Your task to perform on an android device: install app "Google Play Music" Image 0: 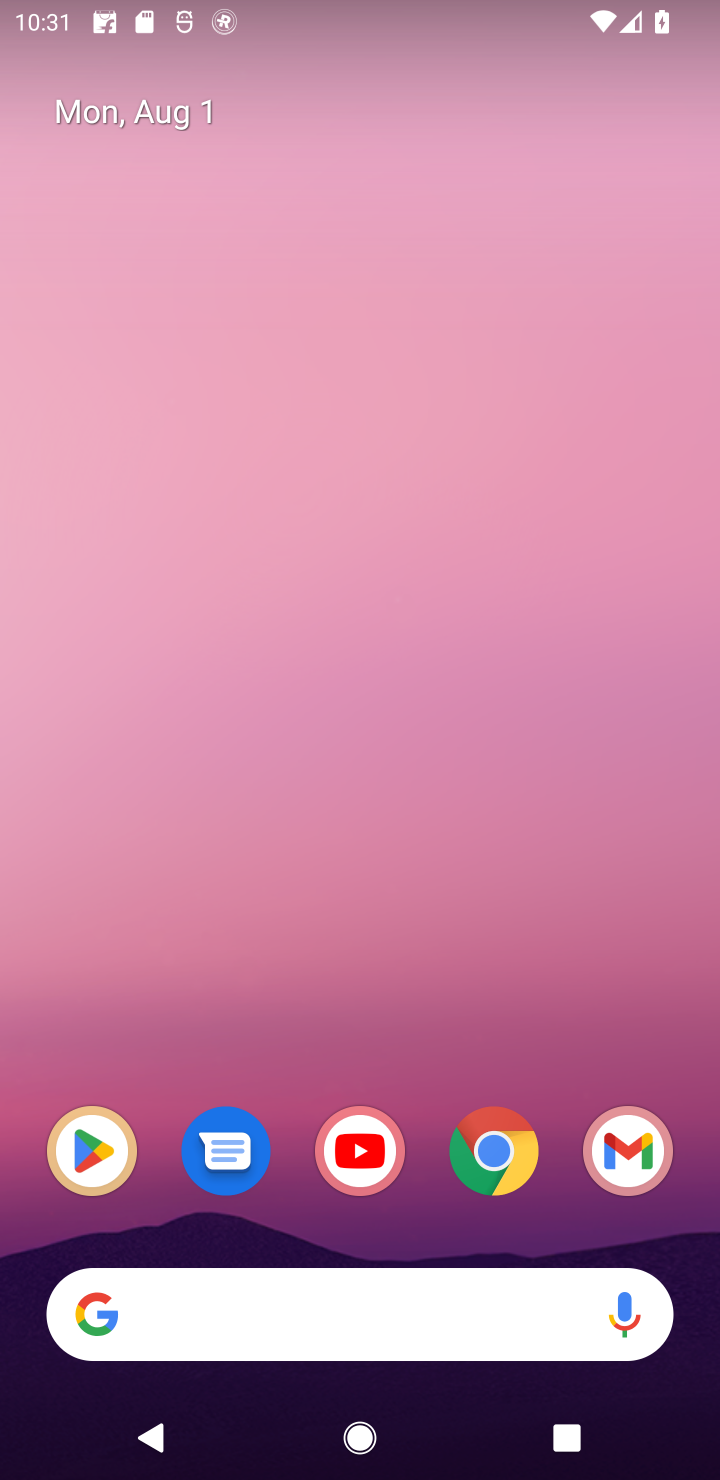
Step 0: click (90, 1146)
Your task to perform on an android device: install app "Google Play Music" Image 1: 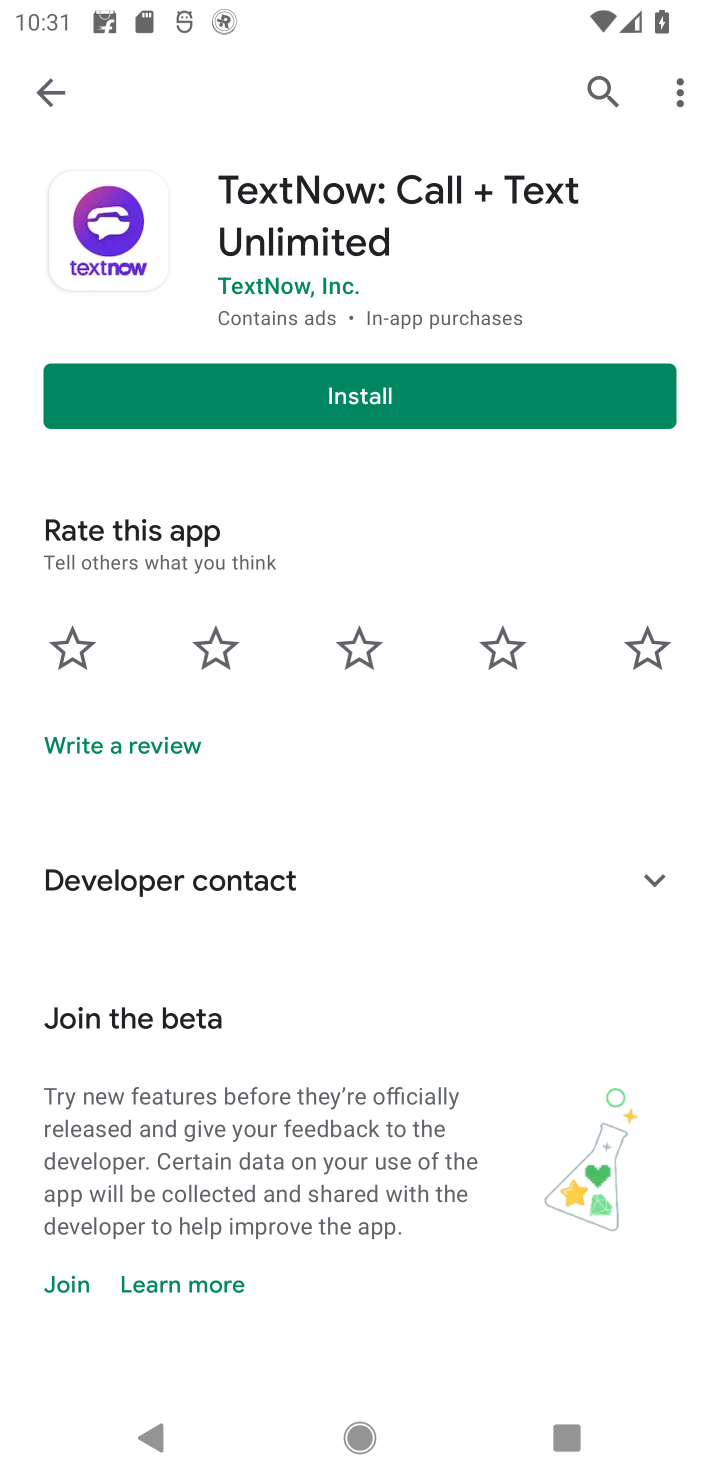
Step 1: click (669, 85)
Your task to perform on an android device: install app "Google Play Music" Image 2: 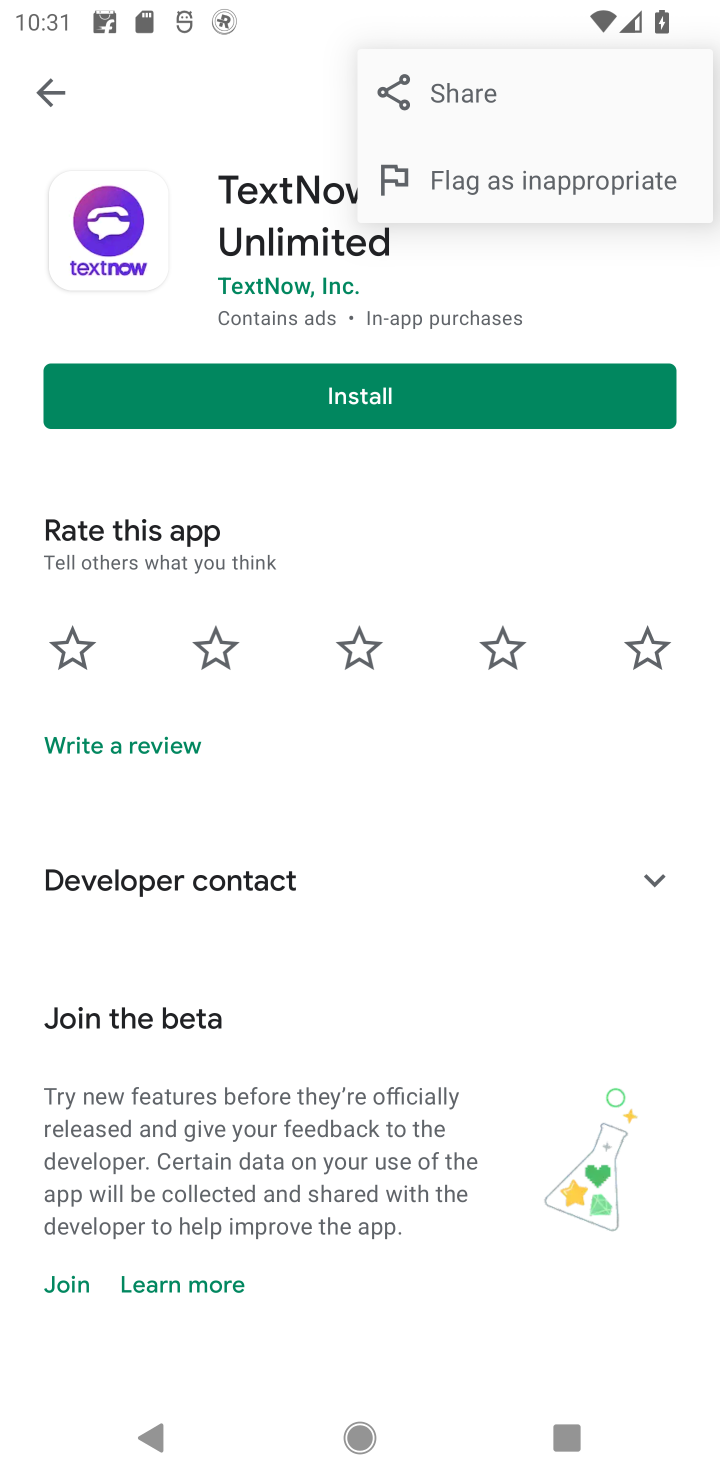
Step 2: click (115, 121)
Your task to perform on an android device: install app "Google Play Music" Image 3: 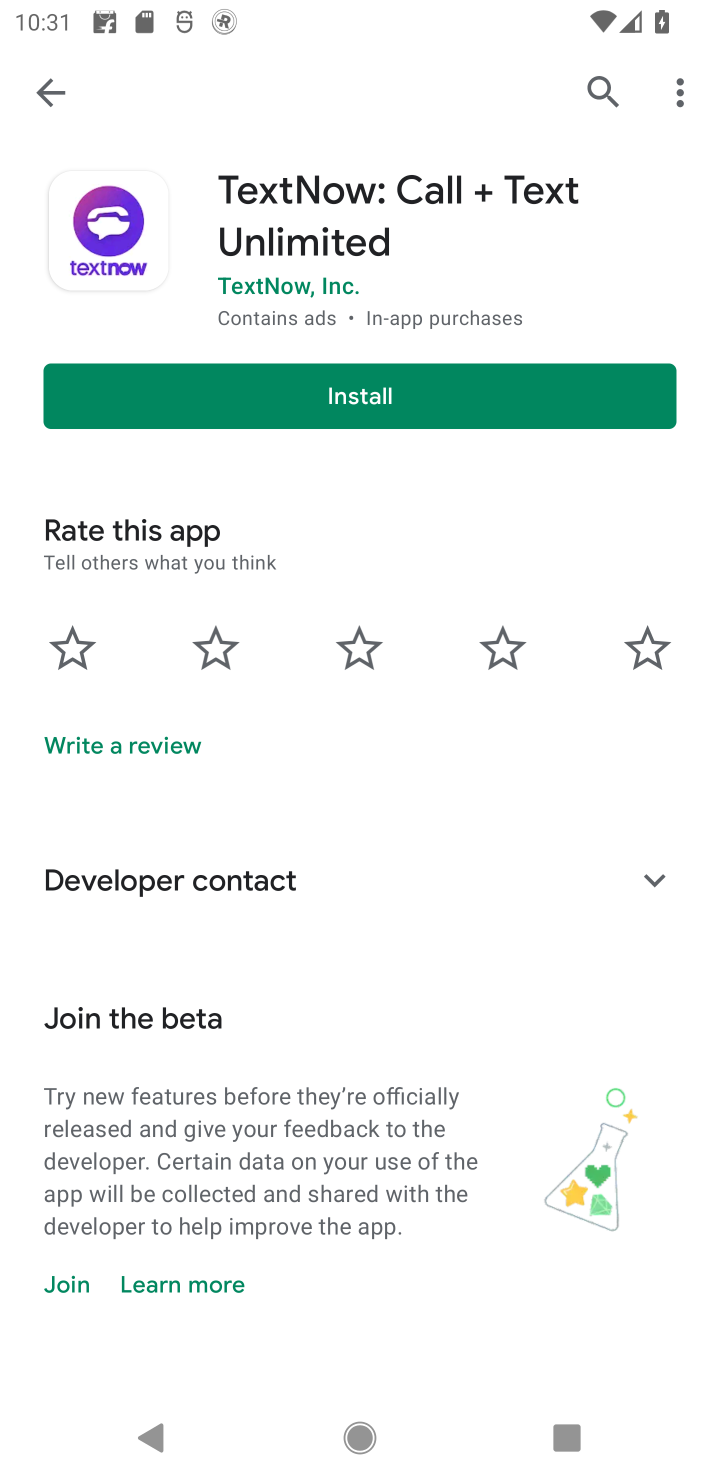
Step 3: click (597, 106)
Your task to perform on an android device: install app "Google Play Music" Image 4: 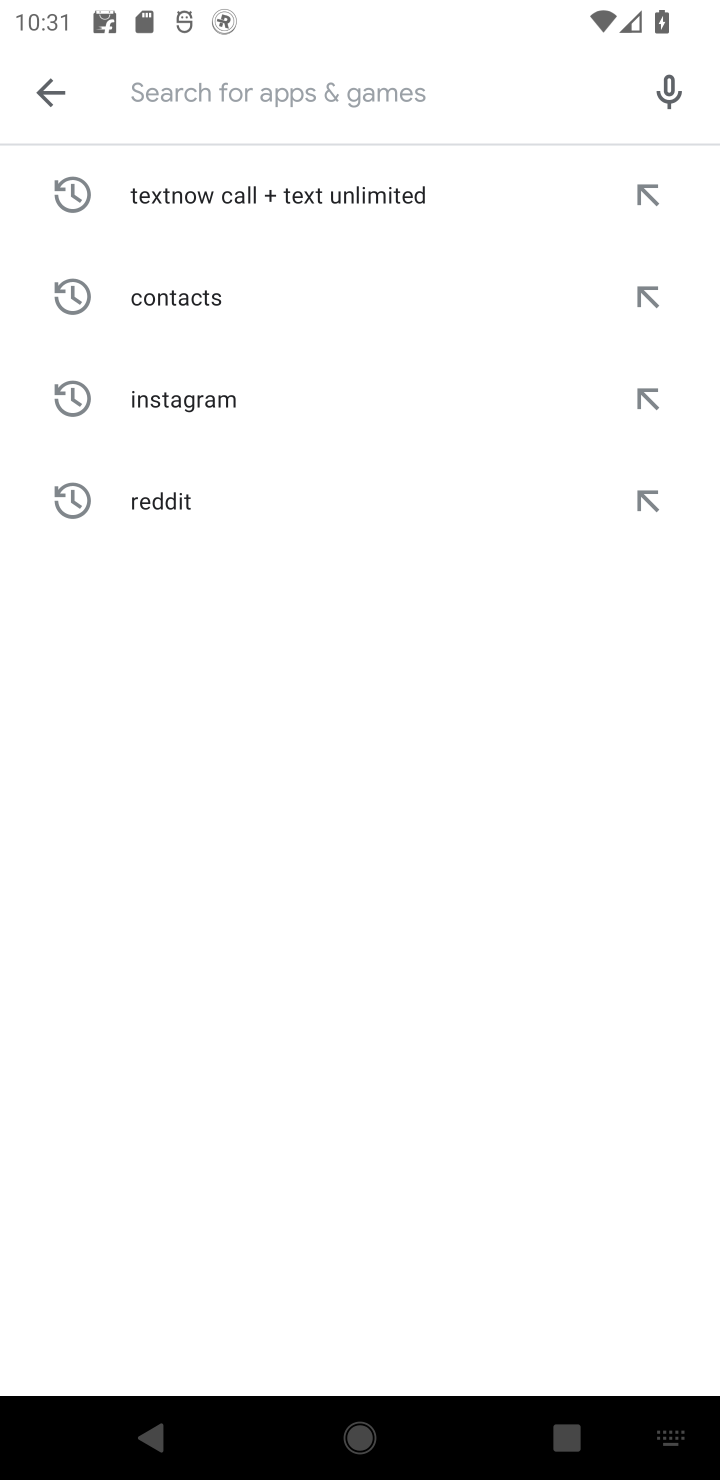
Step 4: type "Google Play Music"
Your task to perform on an android device: install app "Google Play Music" Image 5: 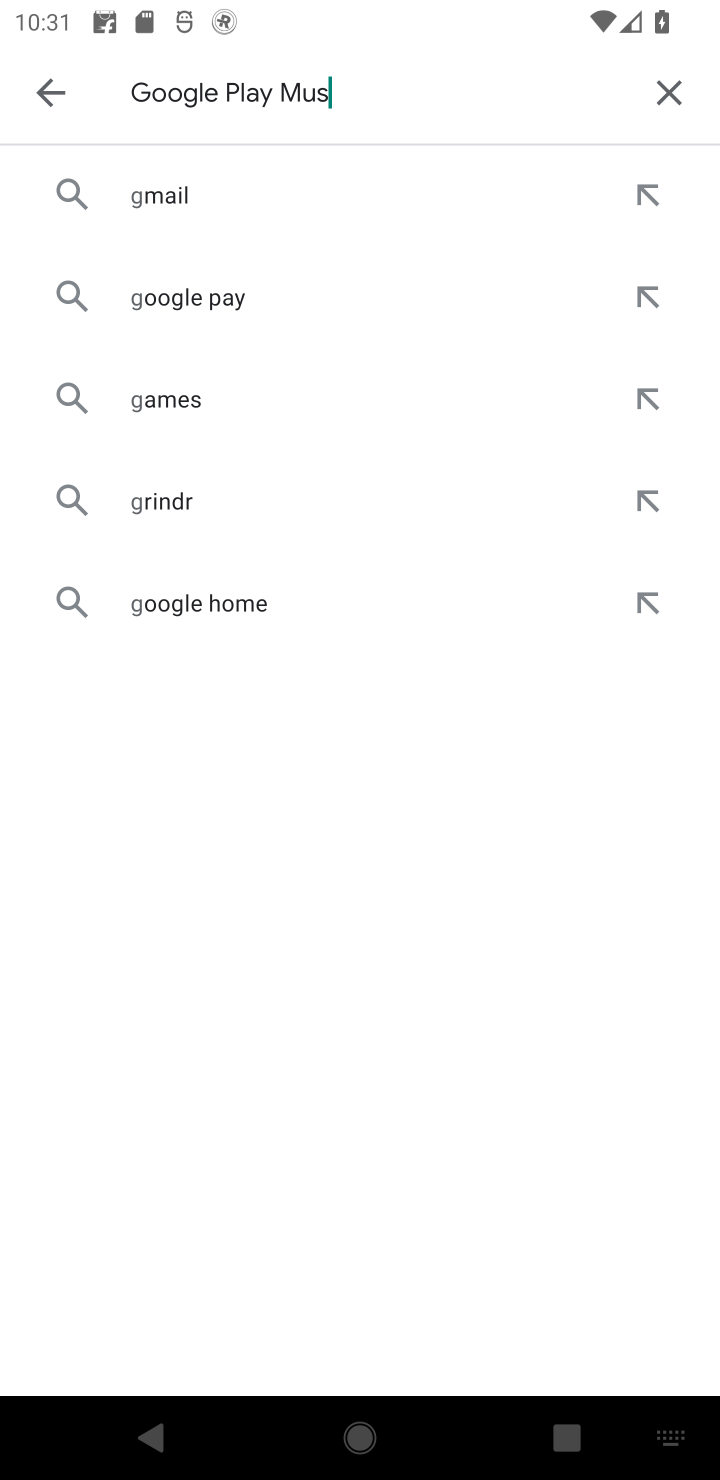
Step 5: type ""
Your task to perform on an android device: install app "Google Play Music" Image 6: 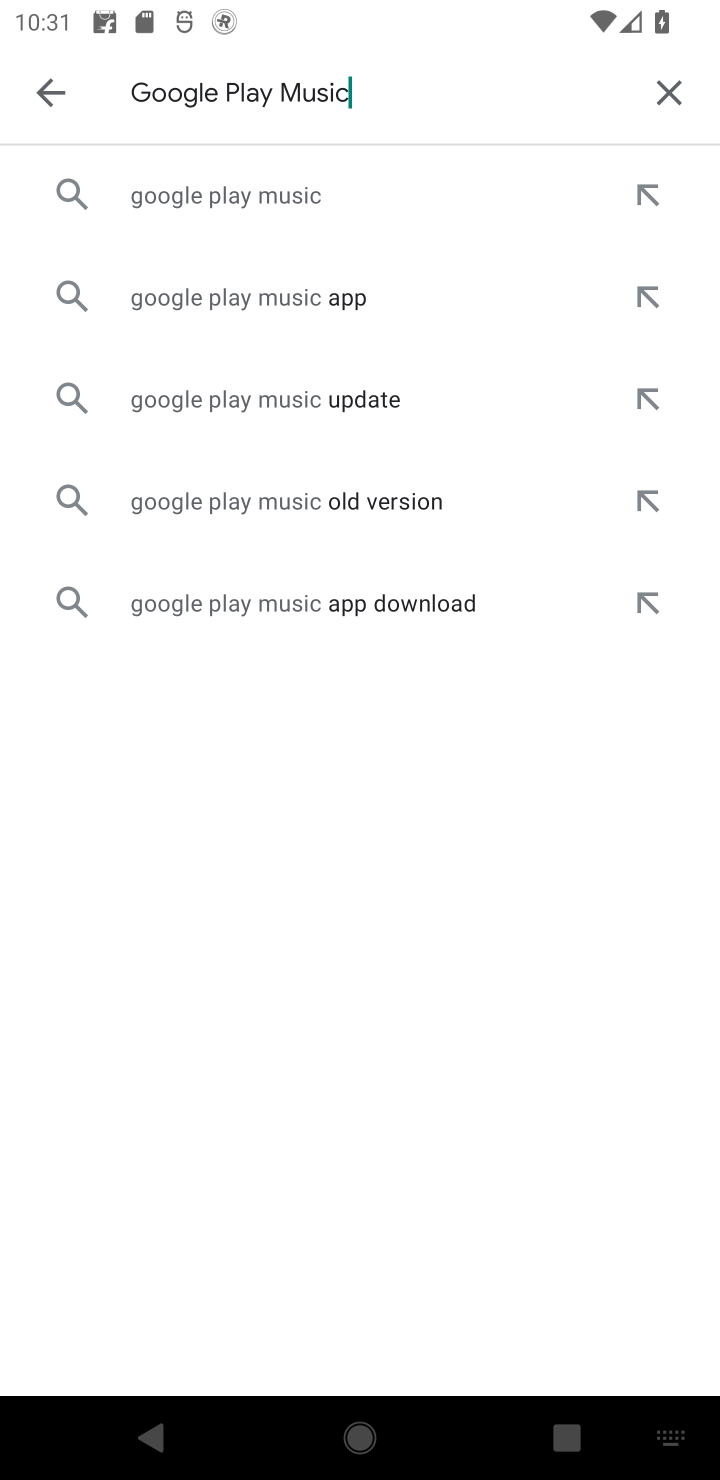
Step 6: click (325, 203)
Your task to perform on an android device: install app "Google Play Music" Image 7: 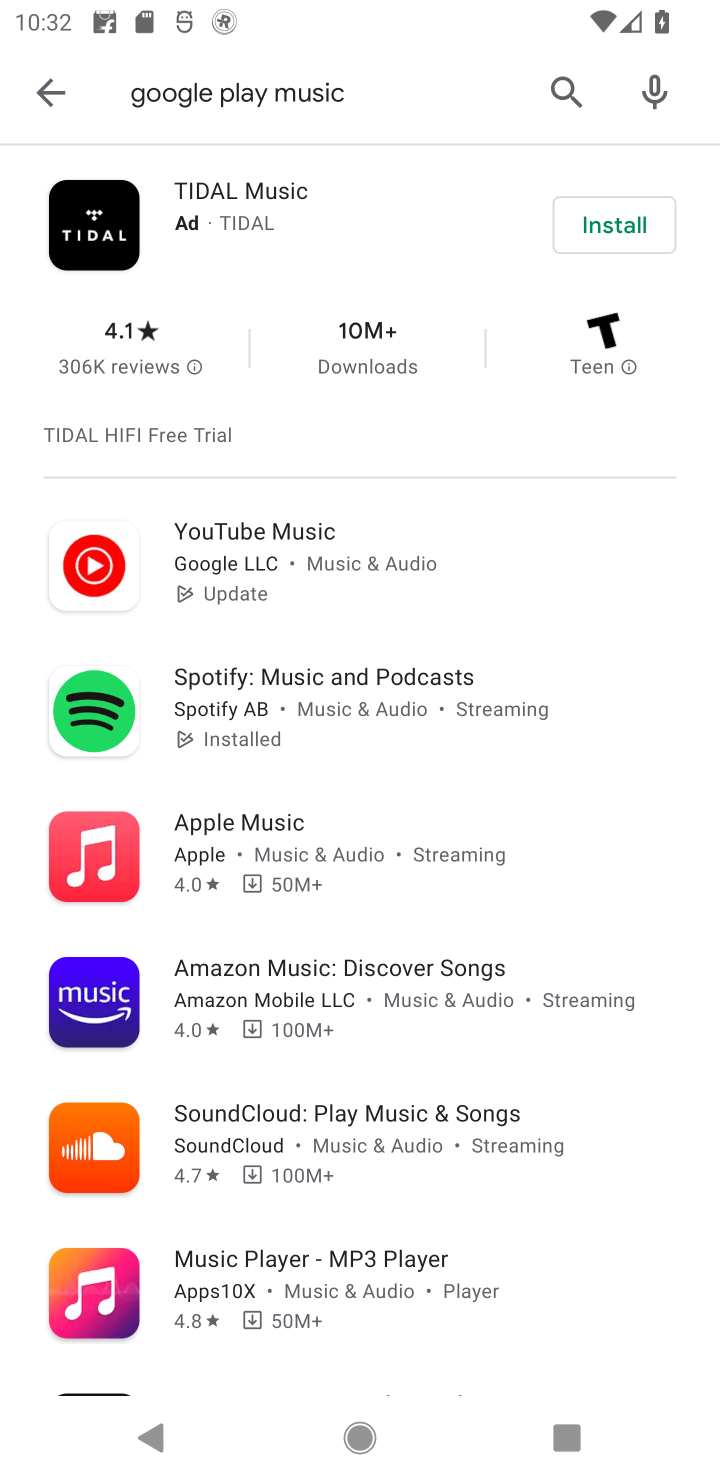
Step 7: task complete